Your task to perform on an android device: Open Reddit.com Image 0: 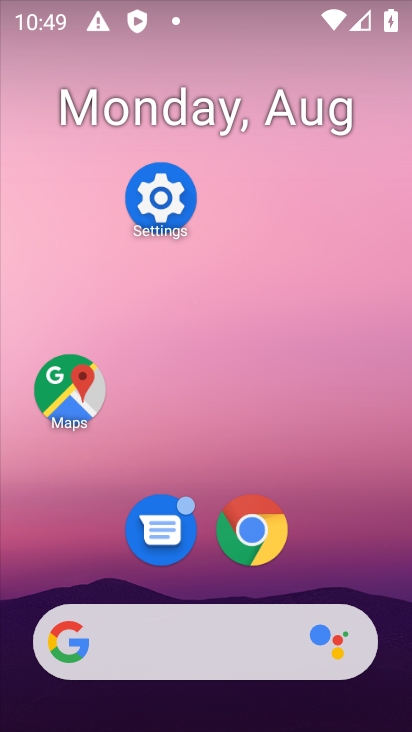
Step 0: drag from (275, 719) to (219, 246)
Your task to perform on an android device: Open Reddit.com Image 1: 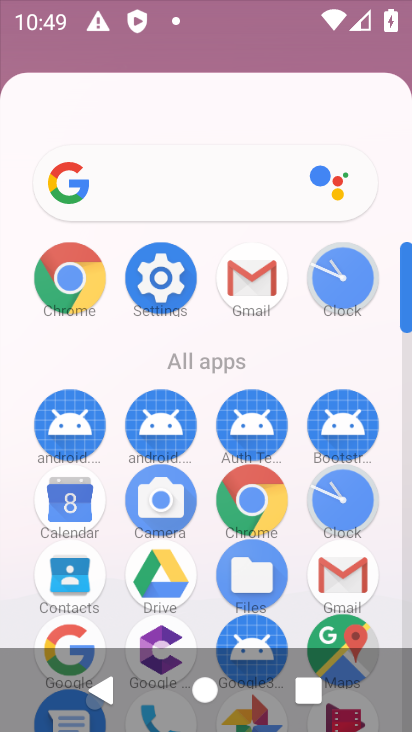
Step 1: drag from (259, 627) to (261, 336)
Your task to perform on an android device: Open Reddit.com Image 2: 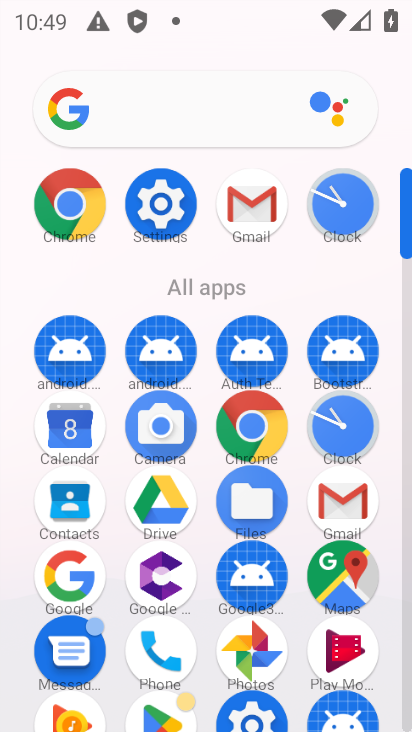
Step 2: click (75, 215)
Your task to perform on an android device: Open Reddit.com Image 3: 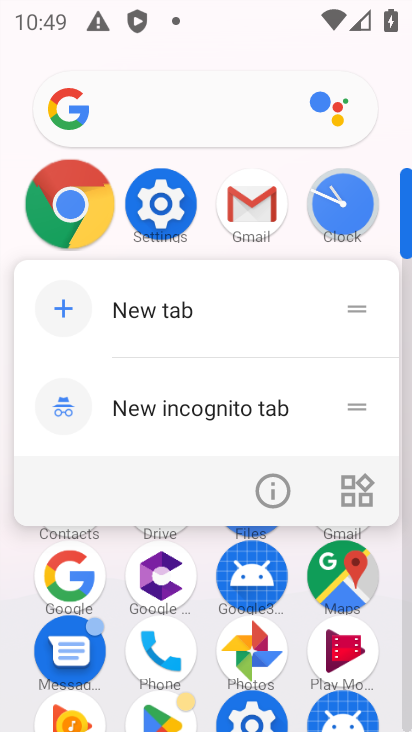
Step 3: click (80, 211)
Your task to perform on an android device: Open Reddit.com Image 4: 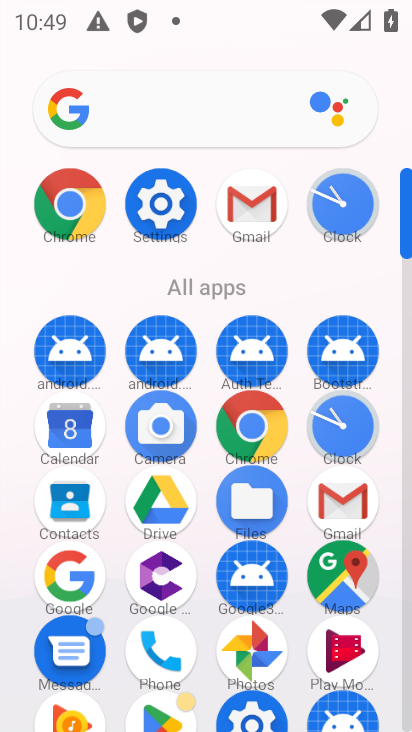
Step 4: click (81, 211)
Your task to perform on an android device: Open Reddit.com Image 5: 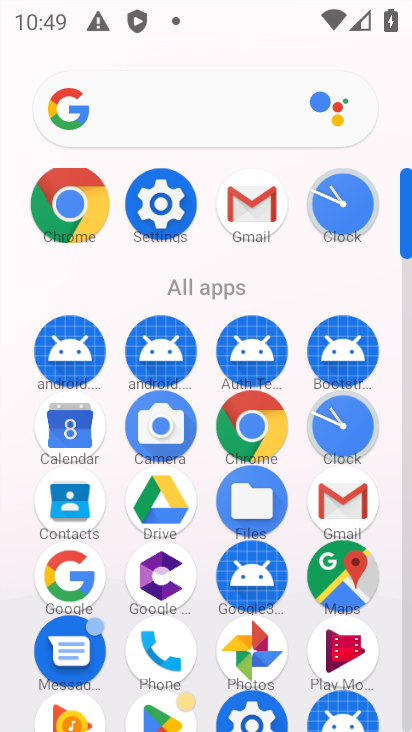
Step 5: click (84, 214)
Your task to perform on an android device: Open Reddit.com Image 6: 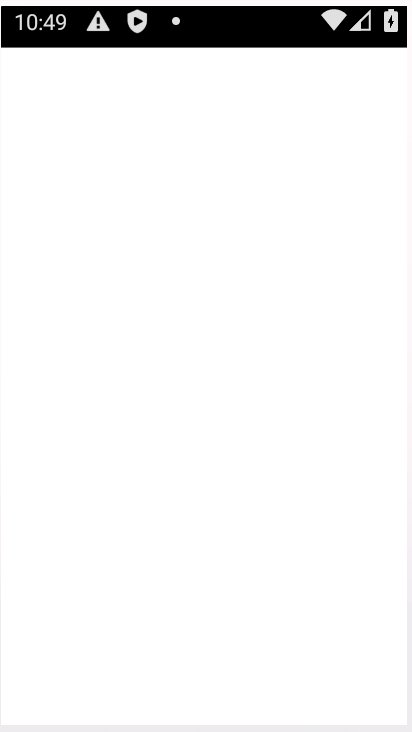
Step 6: click (89, 222)
Your task to perform on an android device: Open Reddit.com Image 7: 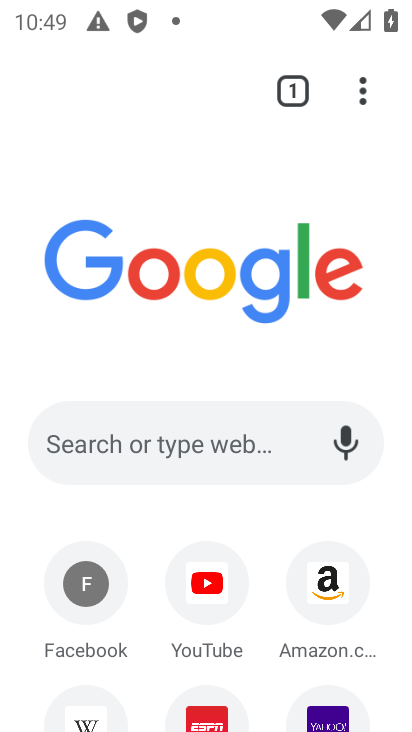
Step 7: click (87, 426)
Your task to perform on an android device: Open Reddit.com Image 8: 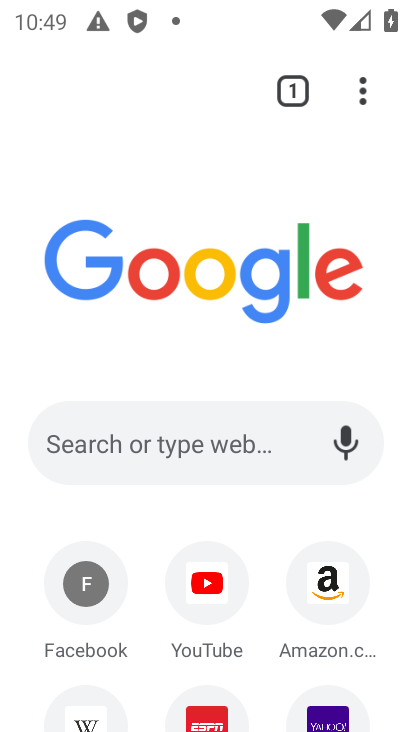
Step 8: click (87, 426)
Your task to perform on an android device: Open Reddit.com Image 9: 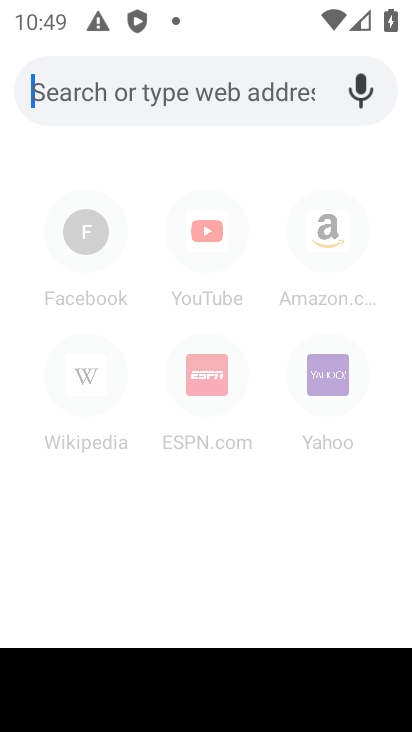
Step 9: type "reddit.com"
Your task to perform on an android device: Open Reddit.com Image 10: 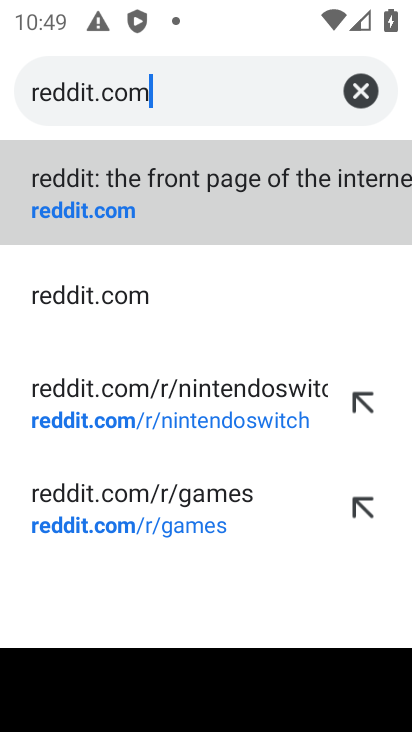
Step 10: click (83, 204)
Your task to perform on an android device: Open Reddit.com Image 11: 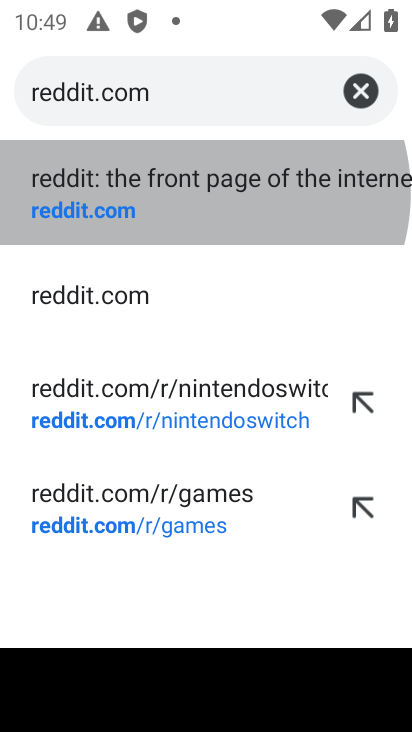
Step 11: click (82, 203)
Your task to perform on an android device: Open Reddit.com Image 12: 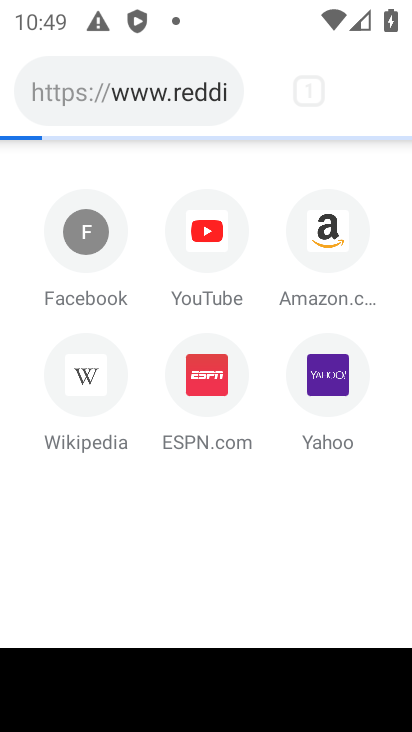
Step 12: click (83, 204)
Your task to perform on an android device: Open Reddit.com Image 13: 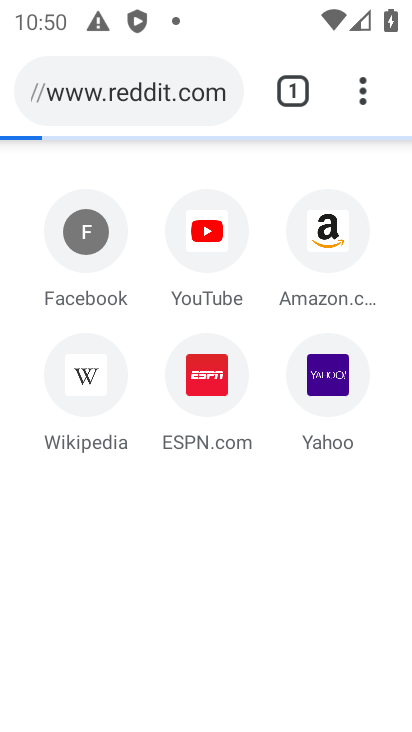
Step 13: click (83, 204)
Your task to perform on an android device: Open Reddit.com Image 14: 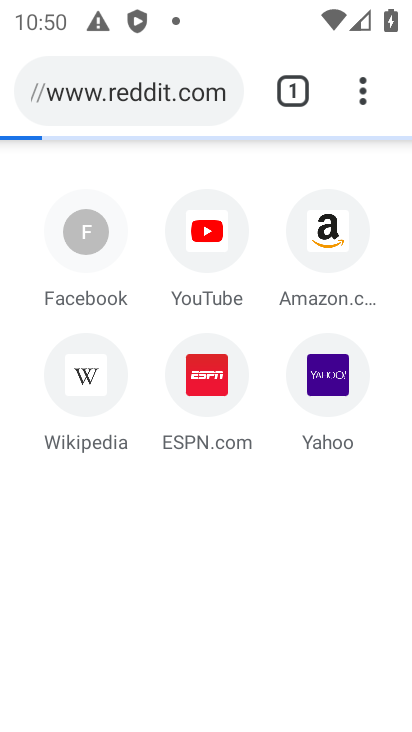
Step 14: click (83, 204)
Your task to perform on an android device: Open Reddit.com Image 15: 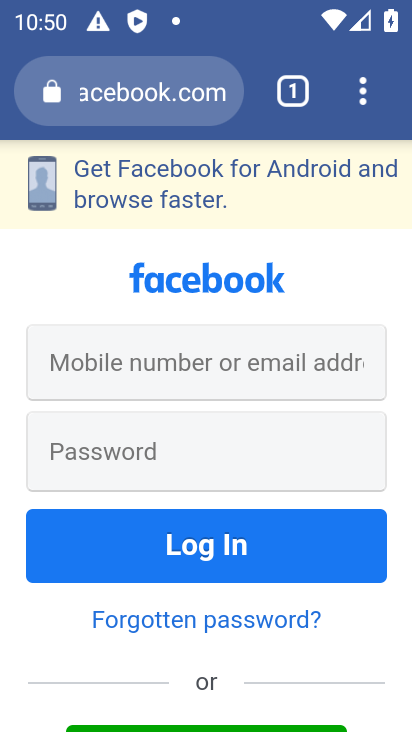
Step 15: task complete